Your task to perform on an android device: toggle pop-ups in chrome Image 0: 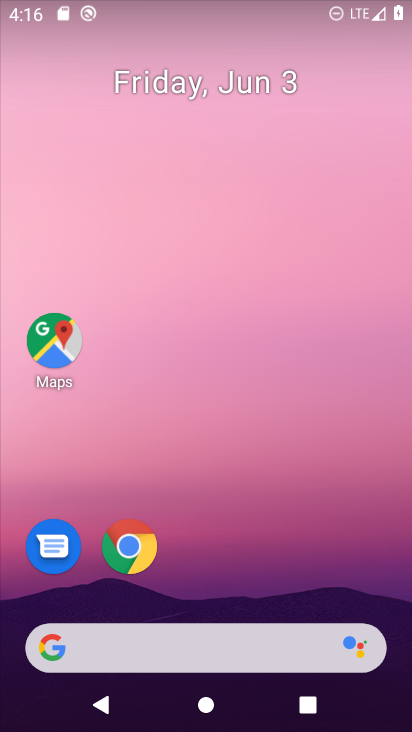
Step 0: click (134, 540)
Your task to perform on an android device: toggle pop-ups in chrome Image 1: 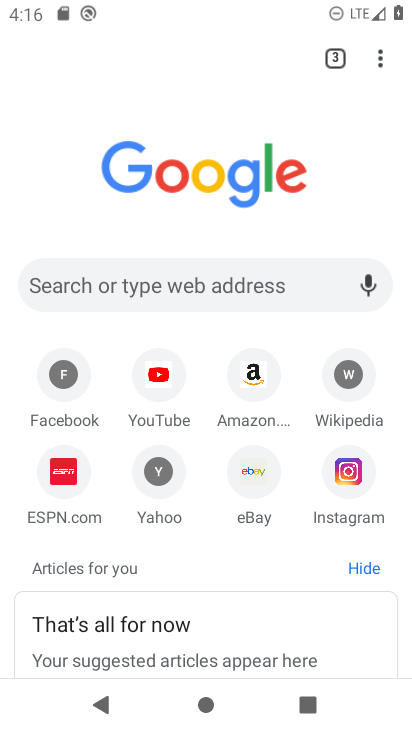
Step 1: click (376, 67)
Your task to perform on an android device: toggle pop-ups in chrome Image 2: 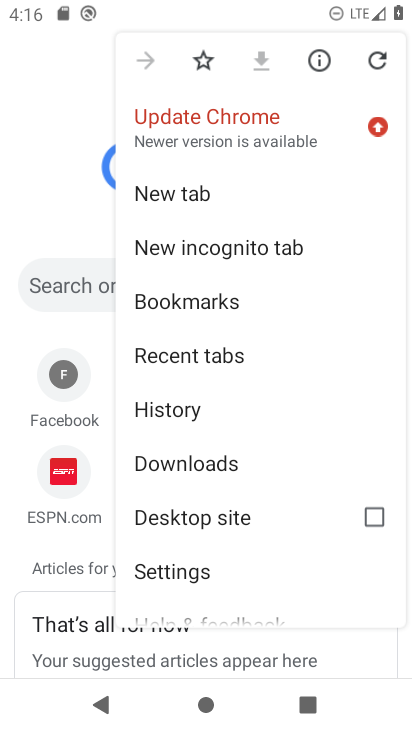
Step 2: click (239, 570)
Your task to perform on an android device: toggle pop-ups in chrome Image 3: 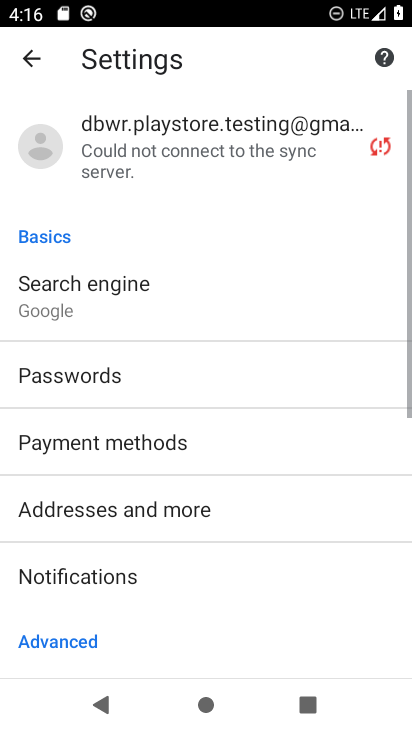
Step 3: drag from (244, 553) to (249, 193)
Your task to perform on an android device: toggle pop-ups in chrome Image 4: 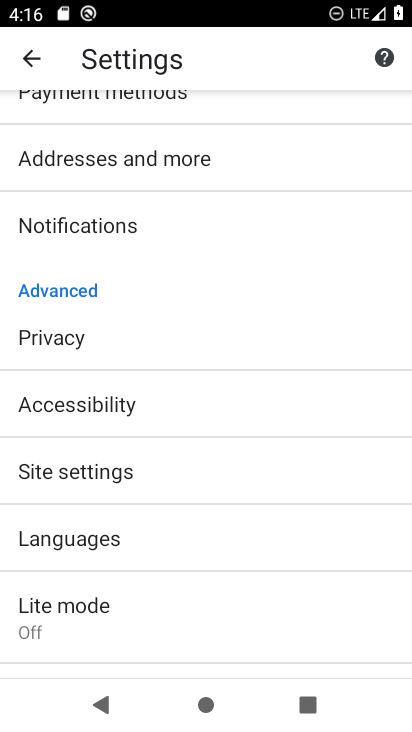
Step 4: click (206, 471)
Your task to perform on an android device: toggle pop-ups in chrome Image 5: 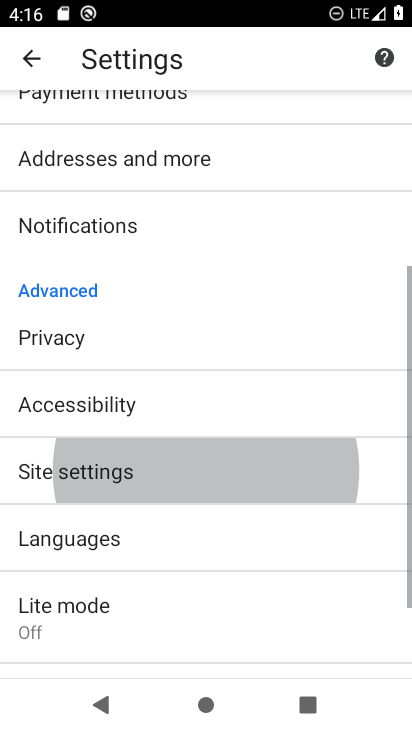
Step 5: click (230, 471)
Your task to perform on an android device: toggle pop-ups in chrome Image 6: 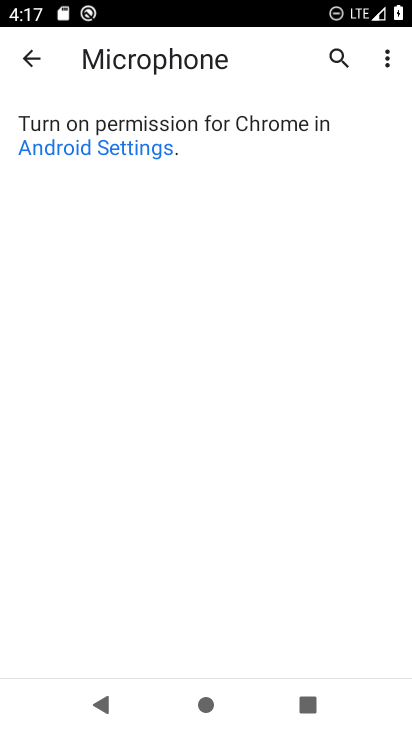
Step 6: click (35, 50)
Your task to perform on an android device: toggle pop-ups in chrome Image 7: 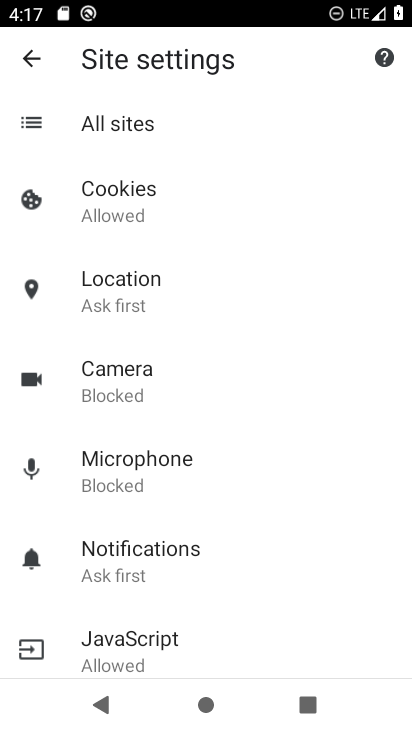
Step 7: drag from (203, 582) to (210, 300)
Your task to perform on an android device: toggle pop-ups in chrome Image 8: 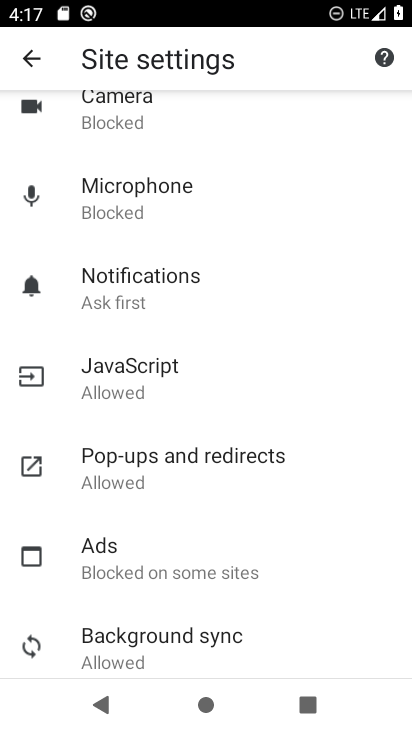
Step 8: click (217, 461)
Your task to perform on an android device: toggle pop-ups in chrome Image 9: 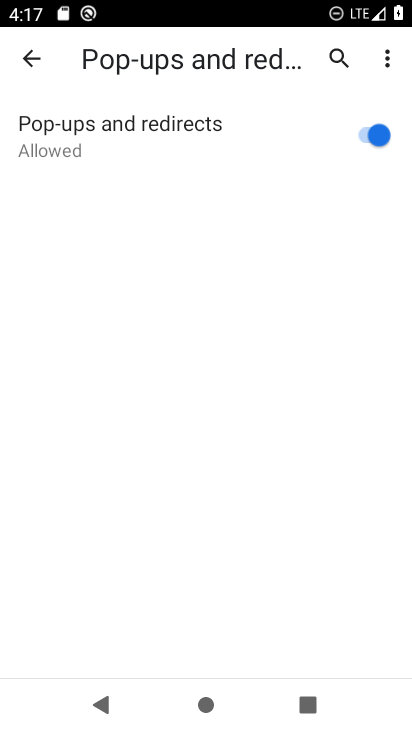
Step 9: click (358, 125)
Your task to perform on an android device: toggle pop-ups in chrome Image 10: 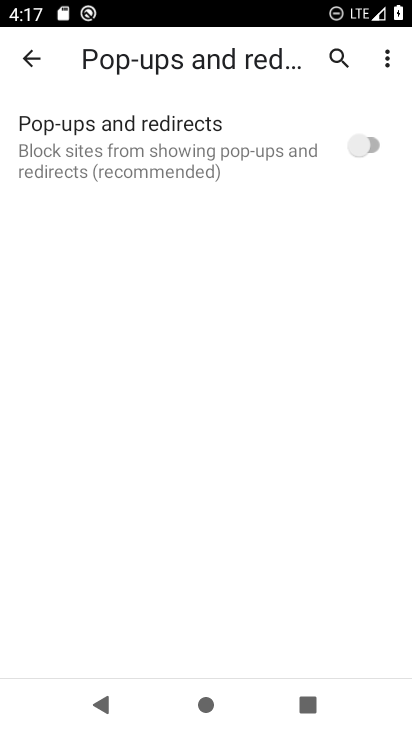
Step 10: task complete